Your task to perform on an android device: Open Reddit.com Image 0: 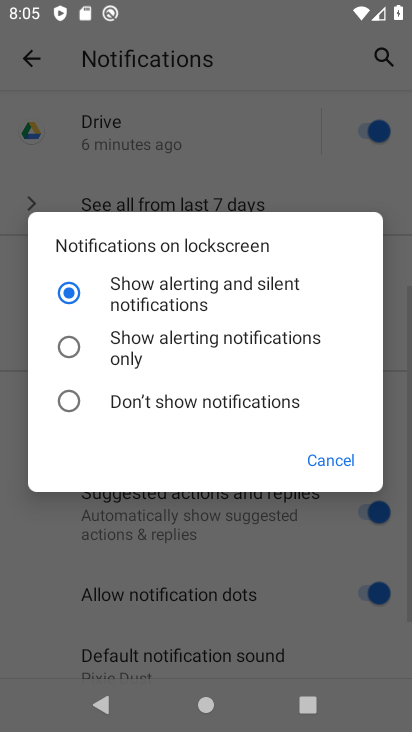
Step 0: press home button
Your task to perform on an android device: Open Reddit.com Image 1: 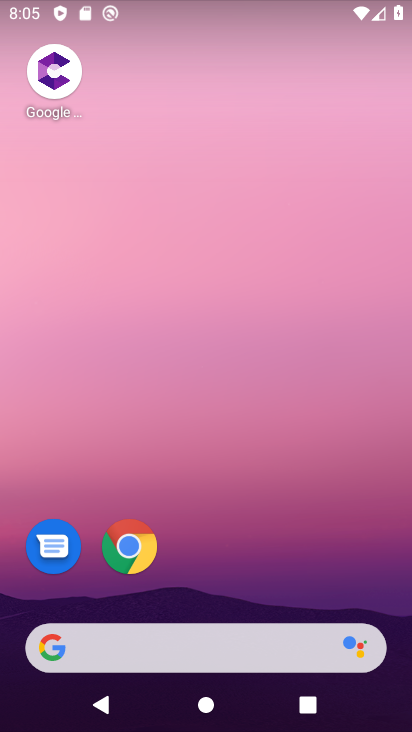
Step 1: drag from (262, 681) to (308, 185)
Your task to perform on an android device: Open Reddit.com Image 2: 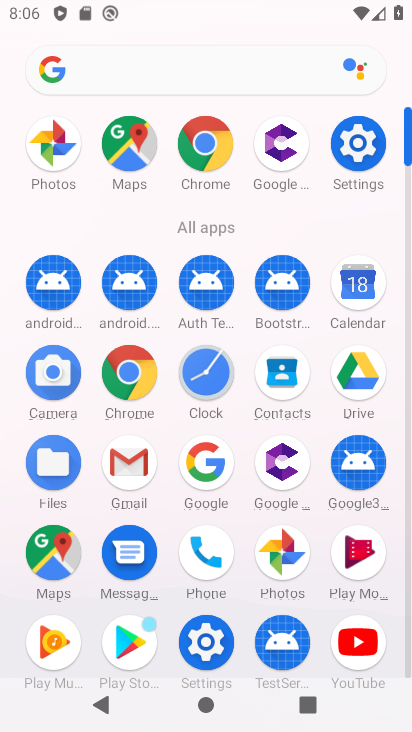
Step 2: click (214, 144)
Your task to perform on an android device: Open Reddit.com Image 3: 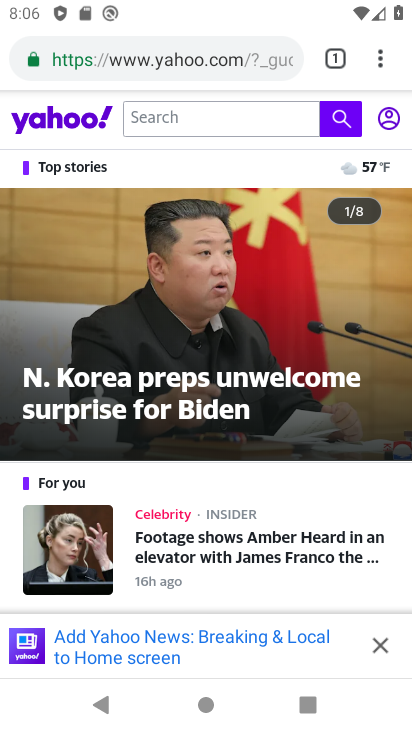
Step 3: click (154, 45)
Your task to perform on an android device: Open Reddit.com Image 4: 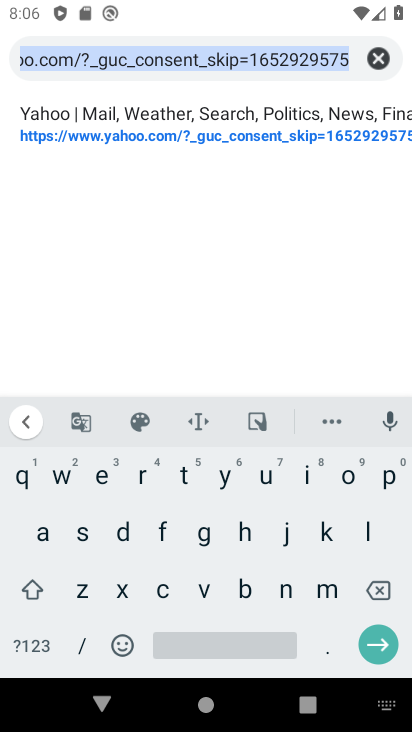
Step 4: click (381, 47)
Your task to perform on an android device: Open Reddit.com Image 5: 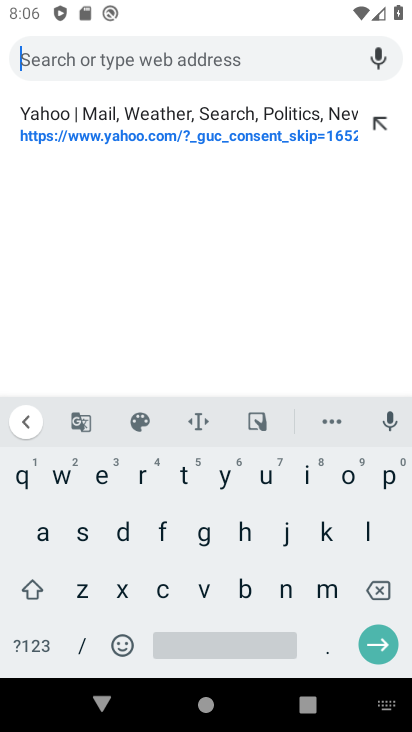
Step 5: click (145, 482)
Your task to perform on an android device: Open Reddit.com Image 6: 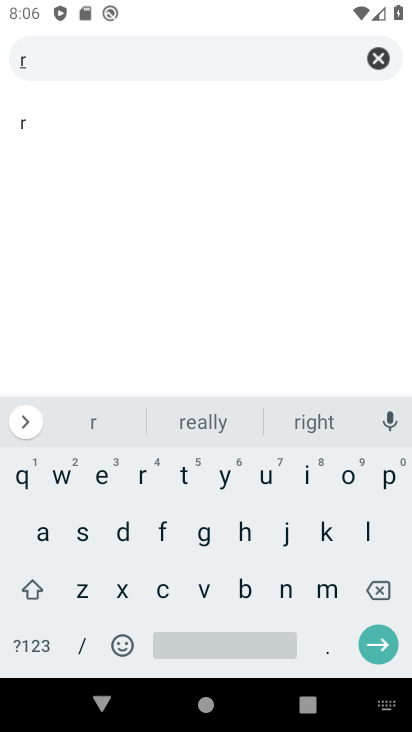
Step 6: click (100, 477)
Your task to perform on an android device: Open Reddit.com Image 7: 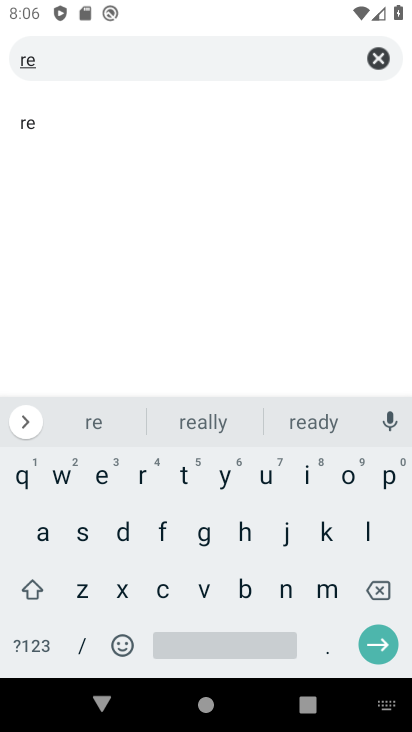
Step 7: click (118, 539)
Your task to perform on an android device: Open Reddit.com Image 8: 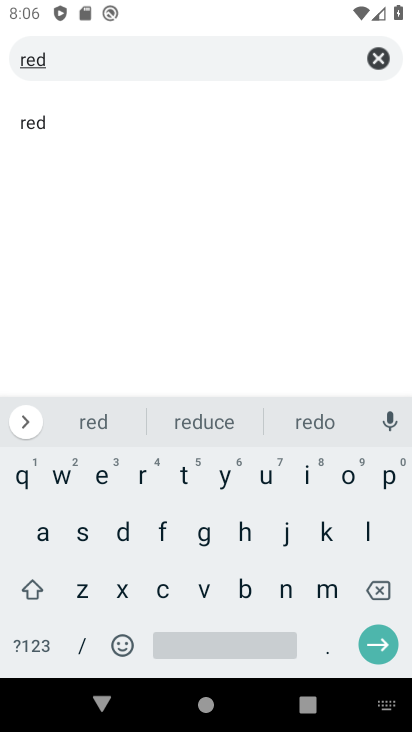
Step 8: click (129, 524)
Your task to perform on an android device: Open Reddit.com Image 9: 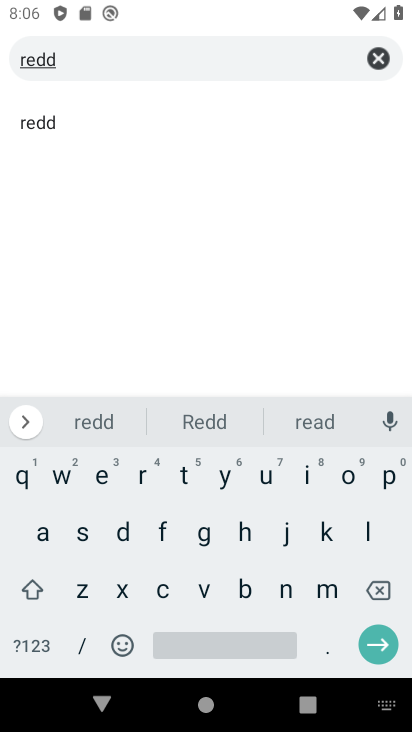
Step 9: click (309, 480)
Your task to perform on an android device: Open Reddit.com Image 10: 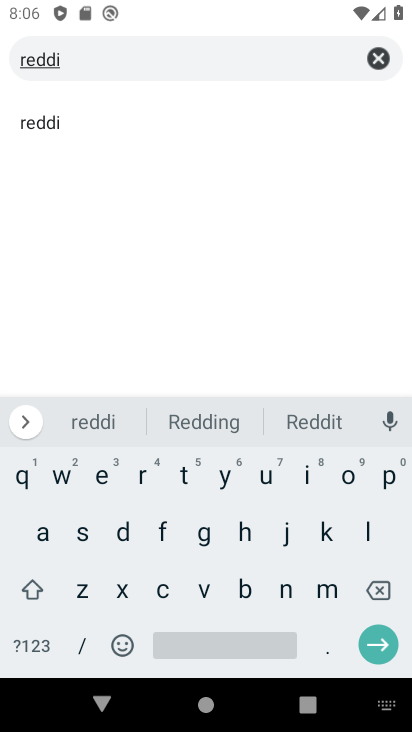
Step 10: click (309, 425)
Your task to perform on an android device: Open Reddit.com Image 11: 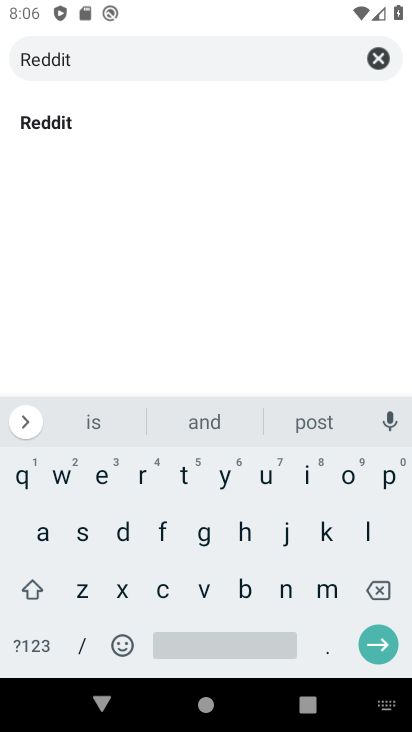
Step 11: click (330, 642)
Your task to perform on an android device: Open Reddit.com Image 12: 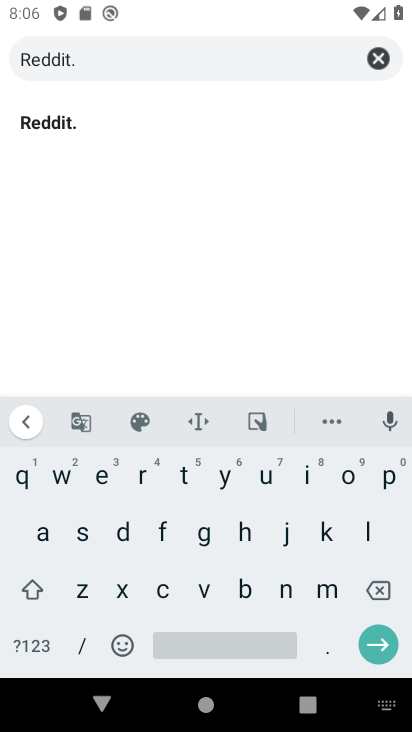
Step 12: click (166, 593)
Your task to perform on an android device: Open Reddit.com Image 13: 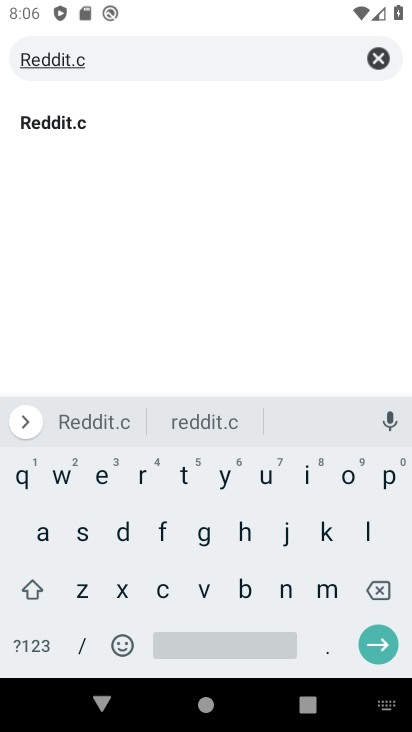
Step 13: click (343, 475)
Your task to perform on an android device: Open Reddit.com Image 14: 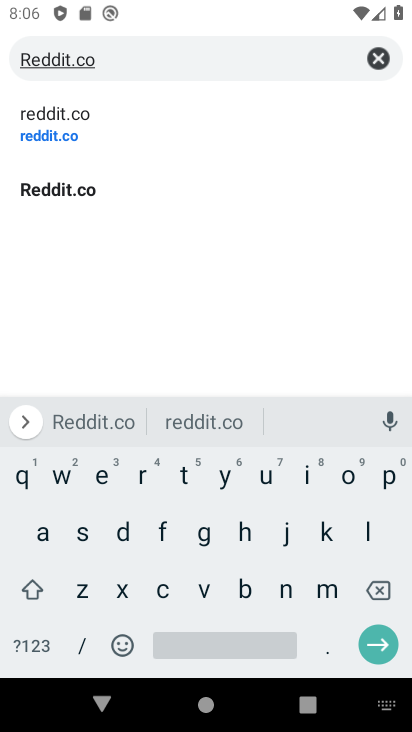
Step 14: click (319, 594)
Your task to perform on an android device: Open Reddit.com Image 15: 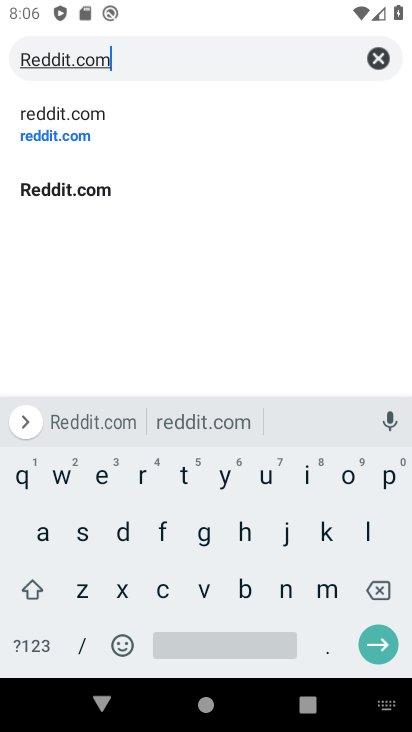
Step 15: click (90, 130)
Your task to perform on an android device: Open Reddit.com Image 16: 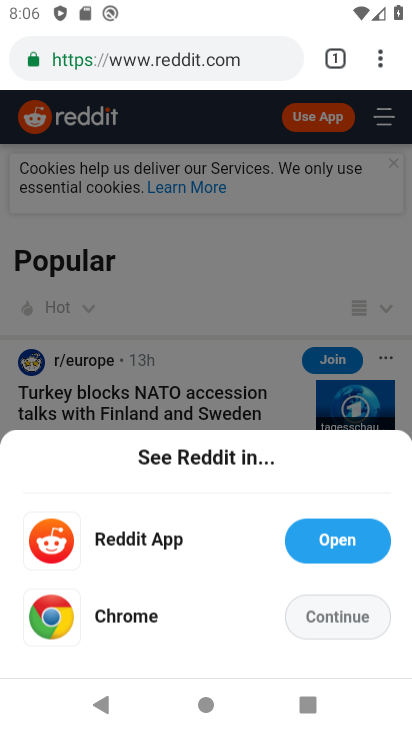
Step 16: task complete